Your task to perform on an android device: Open calendar and show me the third week of next month Image 0: 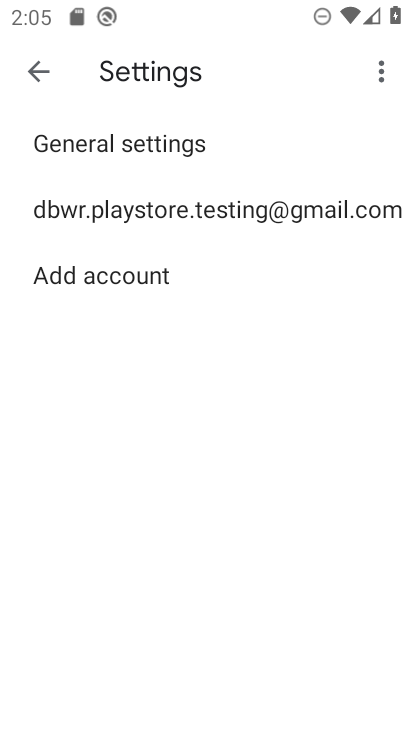
Step 0: press home button
Your task to perform on an android device: Open calendar and show me the third week of next month Image 1: 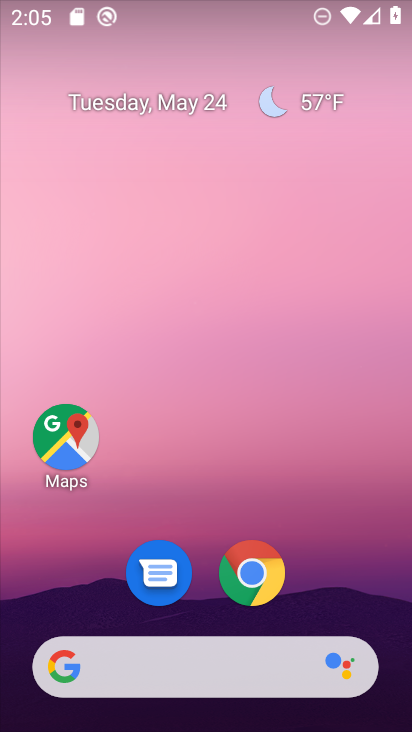
Step 1: drag from (313, 595) to (247, 193)
Your task to perform on an android device: Open calendar and show me the third week of next month Image 2: 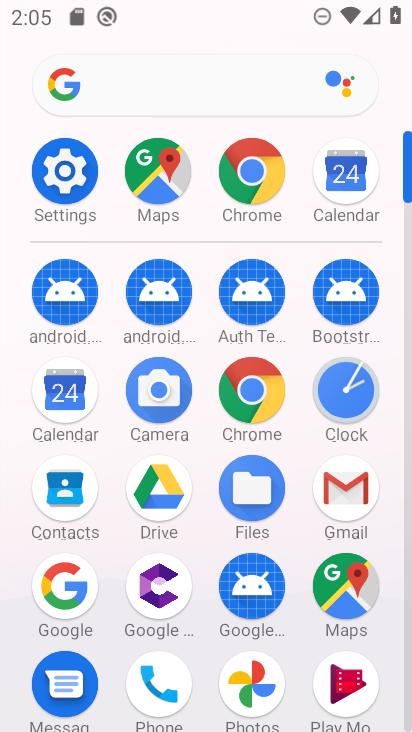
Step 2: click (67, 381)
Your task to perform on an android device: Open calendar and show me the third week of next month Image 3: 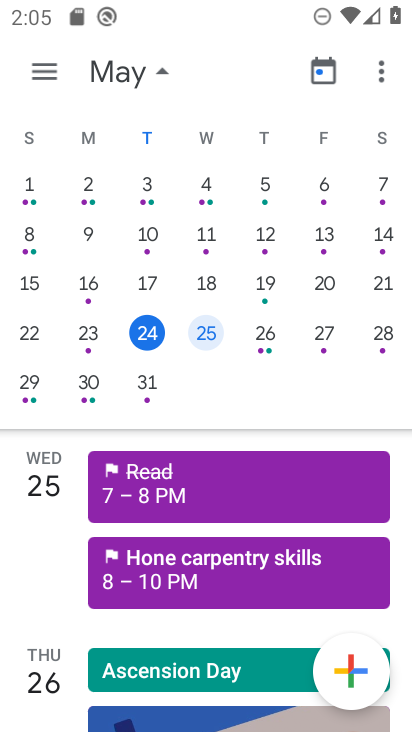
Step 3: drag from (287, 218) to (0, 229)
Your task to perform on an android device: Open calendar and show me the third week of next month Image 4: 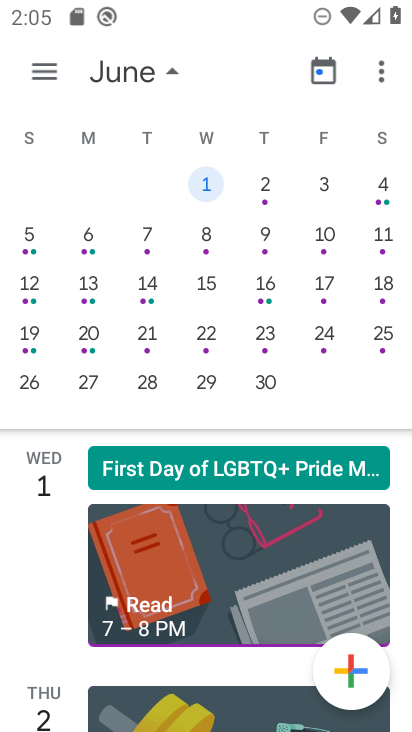
Step 4: click (25, 294)
Your task to perform on an android device: Open calendar and show me the third week of next month Image 5: 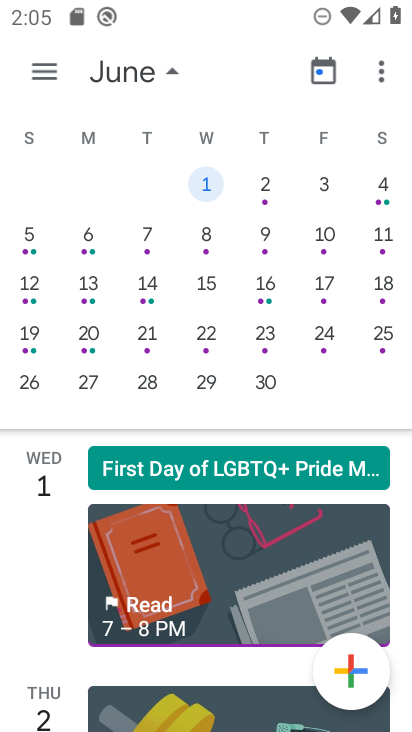
Step 5: click (41, 288)
Your task to perform on an android device: Open calendar and show me the third week of next month Image 6: 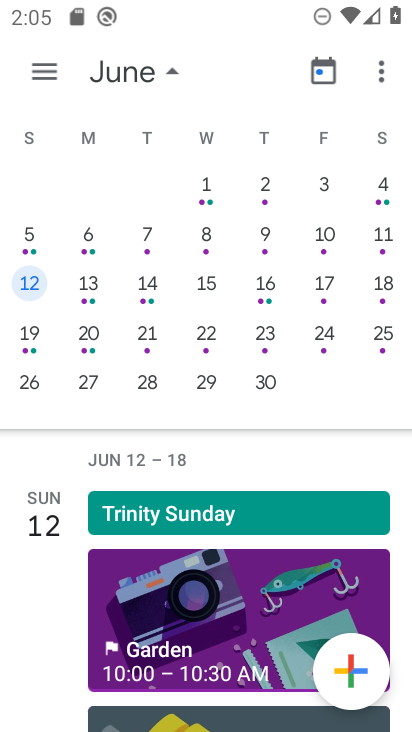
Step 6: task complete